Your task to perform on an android device: What's on the menu at Subway? Image 0: 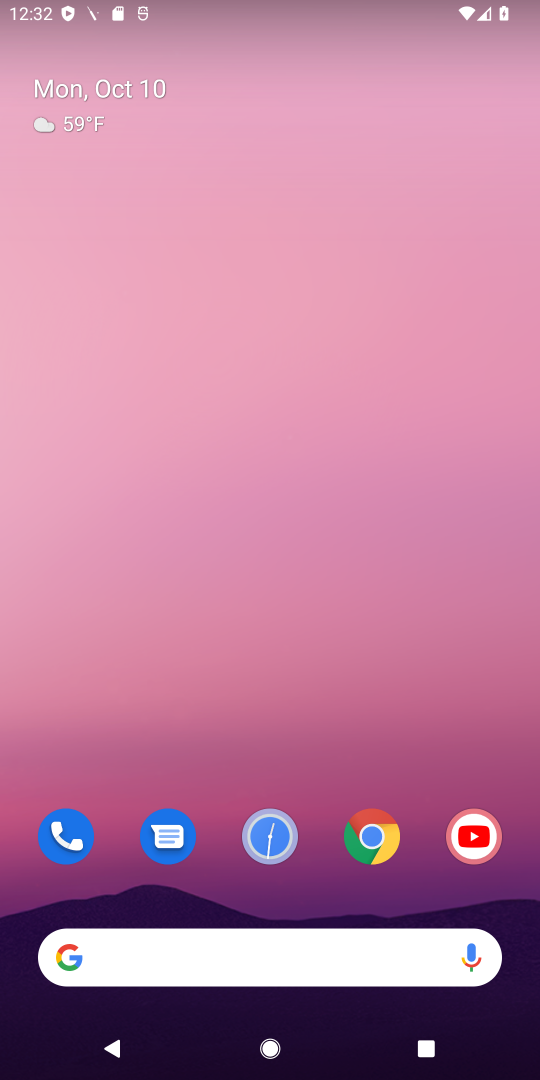
Step 0: click (382, 819)
Your task to perform on an android device: What's on the menu at Subway? Image 1: 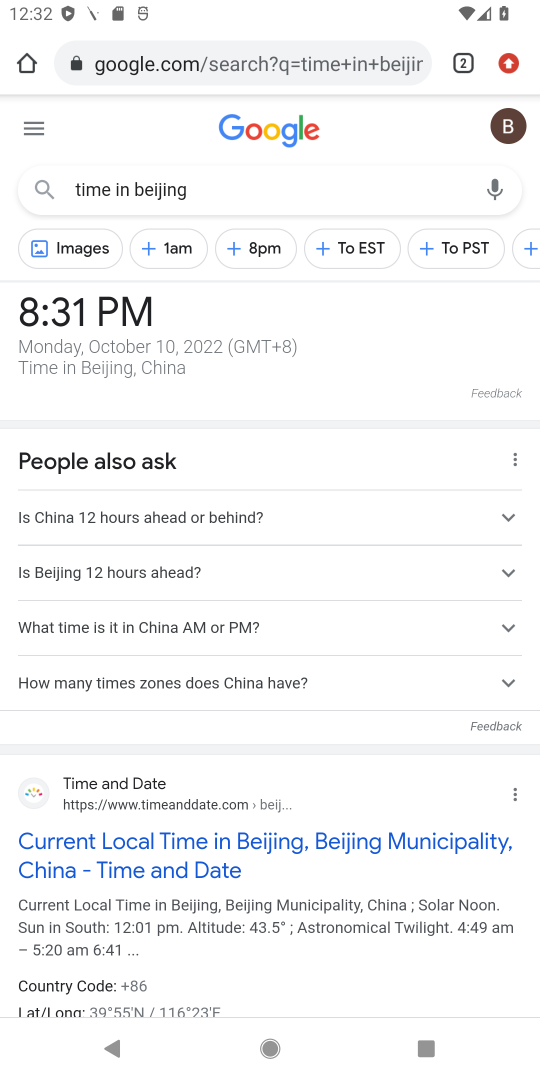
Step 1: click (203, 50)
Your task to perform on an android device: What's on the menu at Subway? Image 2: 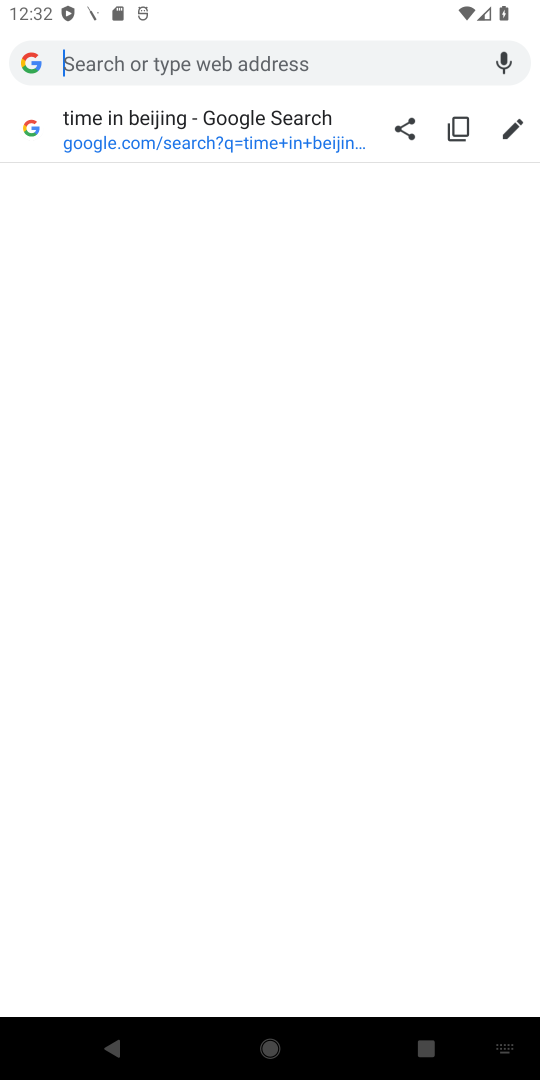
Step 2: type "subway menu"
Your task to perform on an android device: What's on the menu at Subway? Image 3: 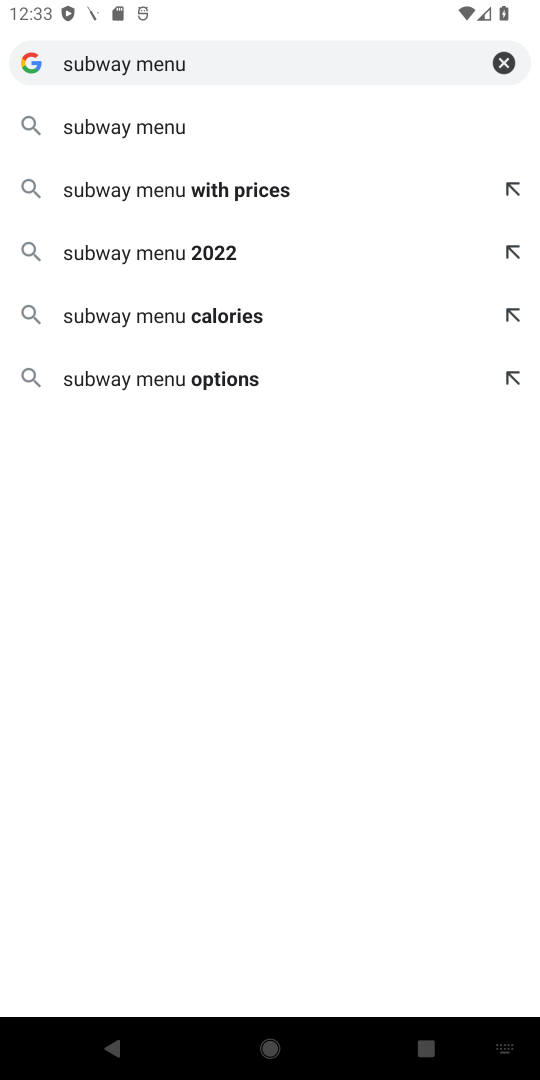
Step 3: click (224, 118)
Your task to perform on an android device: What's on the menu at Subway? Image 4: 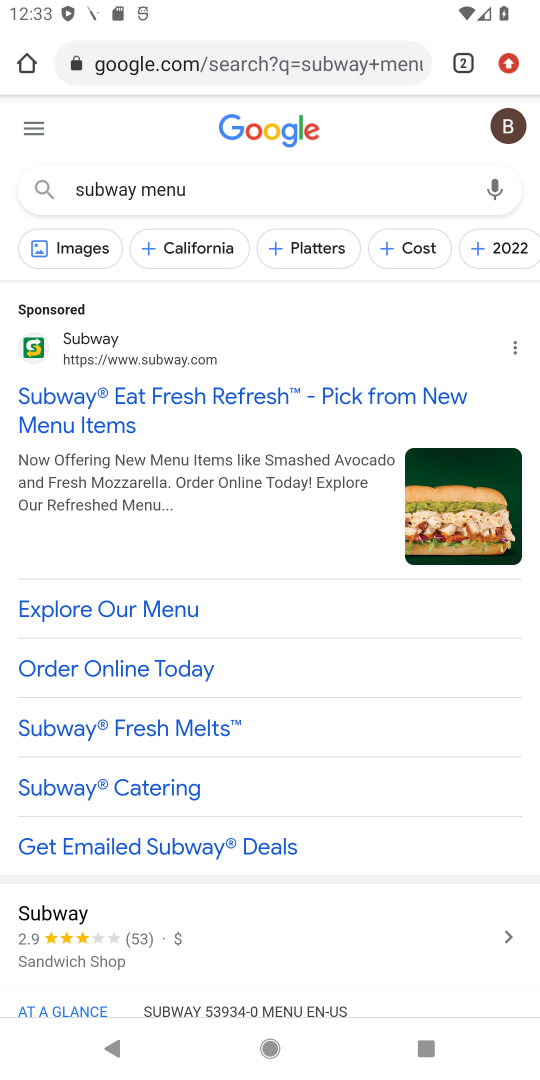
Step 4: drag from (185, 932) to (259, 553)
Your task to perform on an android device: What's on the menu at Subway? Image 5: 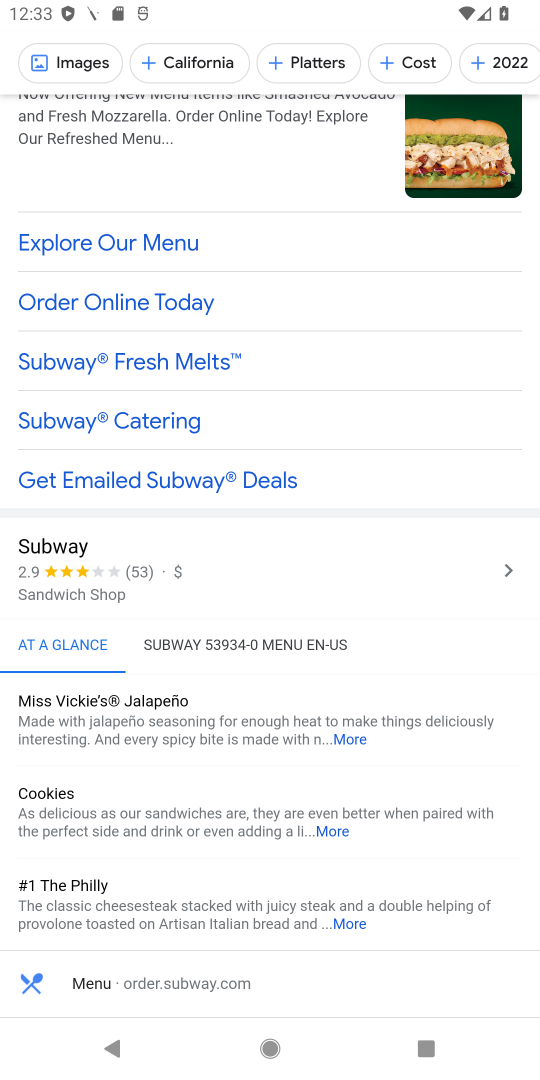
Step 5: drag from (329, 667) to (348, 508)
Your task to perform on an android device: What's on the menu at Subway? Image 6: 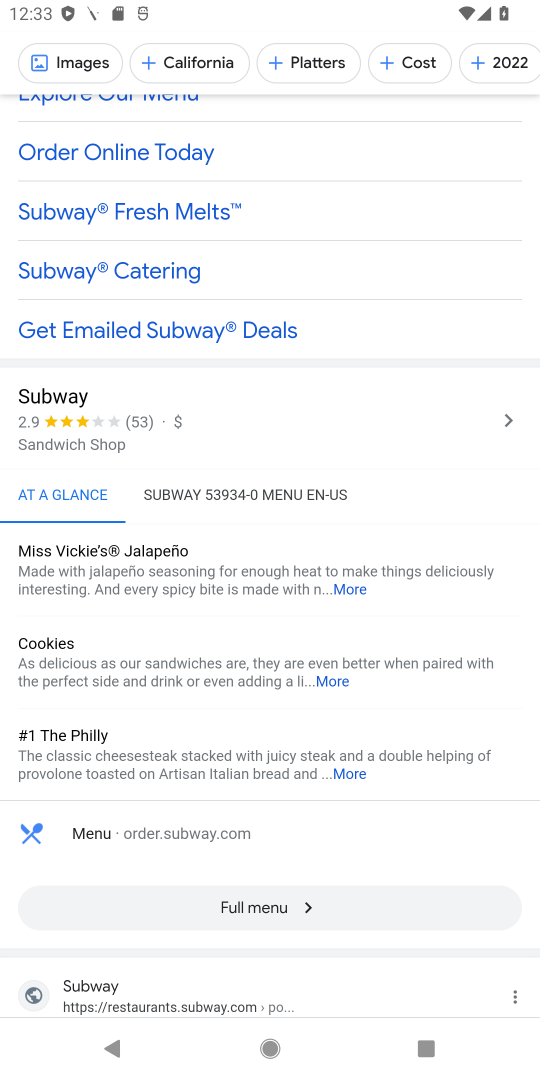
Step 6: click (219, 903)
Your task to perform on an android device: What's on the menu at Subway? Image 7: 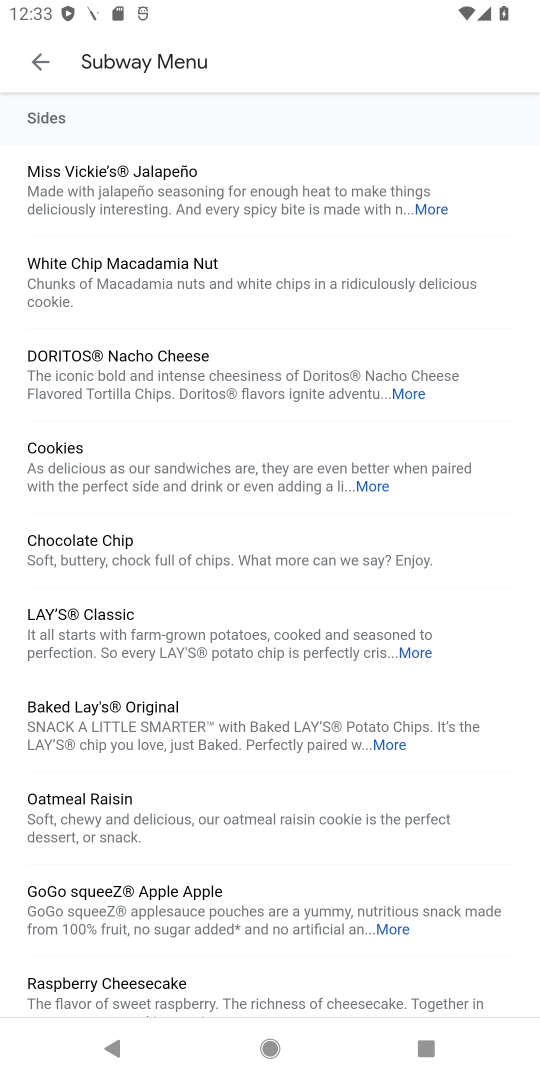
Step 7: task complete